Your task to perform on an android device: change the clock style Image 0: 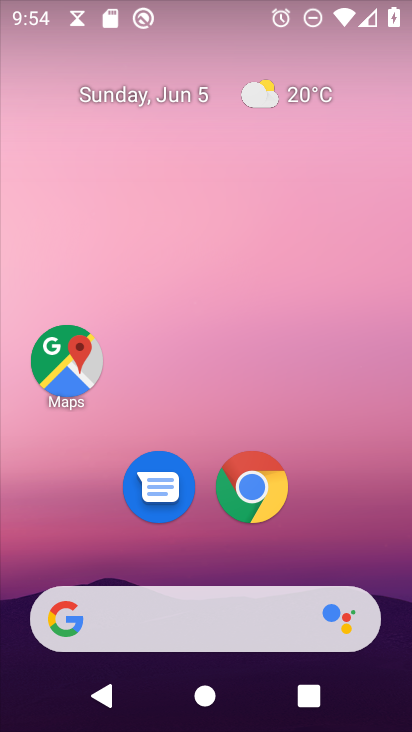
Step 0: click (329, 568)
Your task to perform on an android device: change the clock style Image 1: 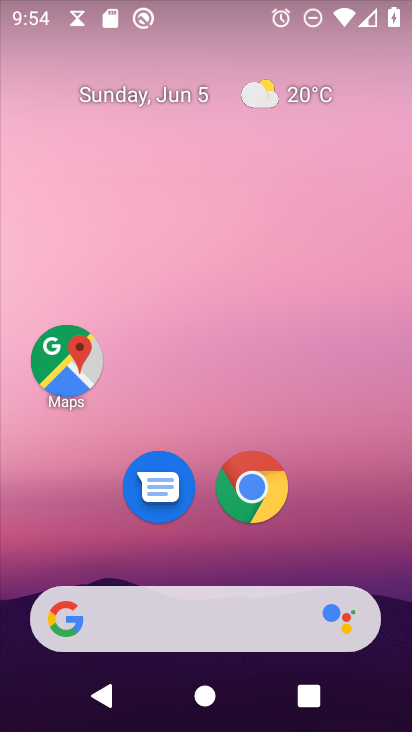
Step 1: drag from (329, 555) to (280, 259)
Your task to perform on an android device: change the clock style Image 2: 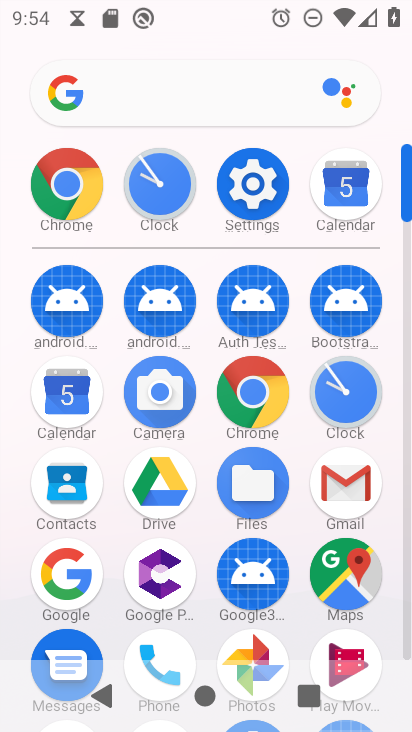
Step 2: click (356, 385)
Your task to perform on an android device: change the clock style Image 3: 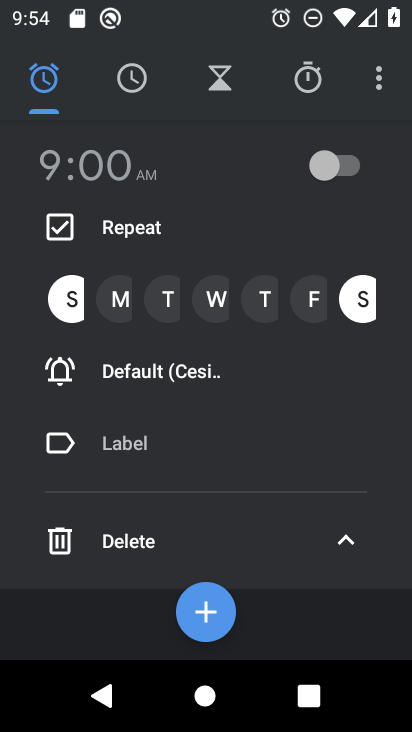
Step 3: click (378, 67)
Your task to perform on an android device: change the clock style Image 4: 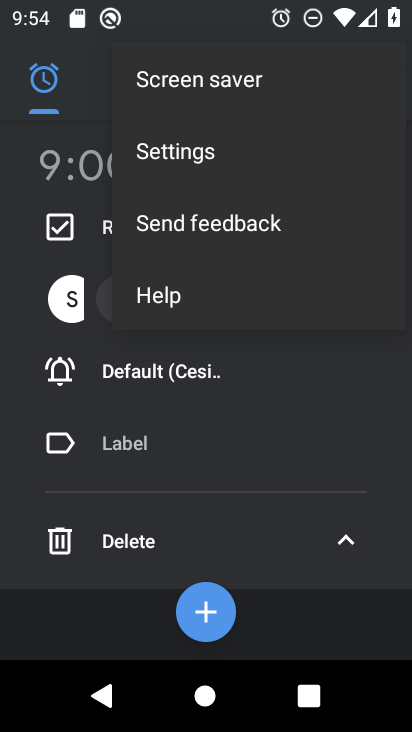
Step 4: click (210, 160)
Your task to perform on an android device: change the clock style Image 5: 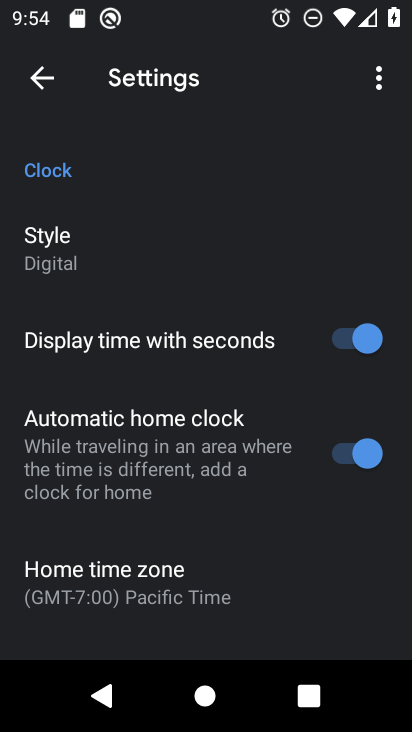
Step 5: click (89, 235)
Your task to perform on an android device: change the clock style Image 6: 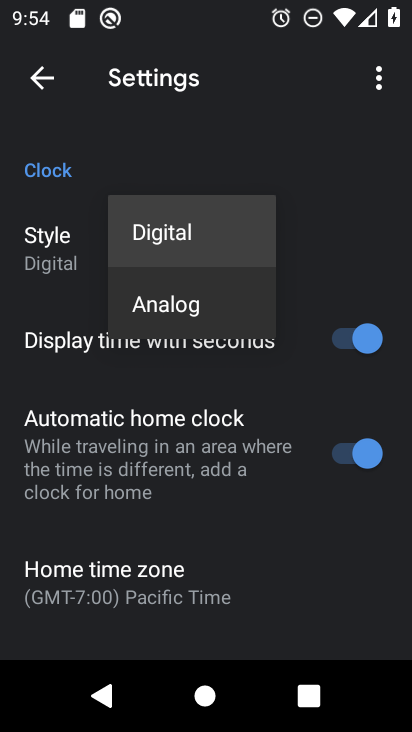
Step 6: click (172, 307)
Your task to perform on an android device: change the clock style Image 7: 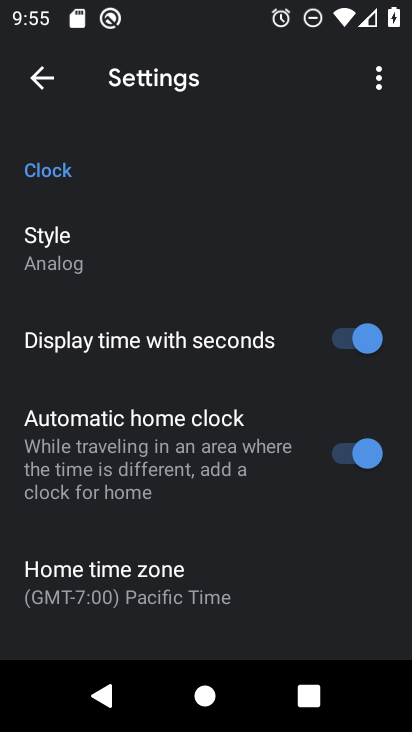
Step 7: task complete